Your task to perform on an android device: open chrome privacy settings Image 0: 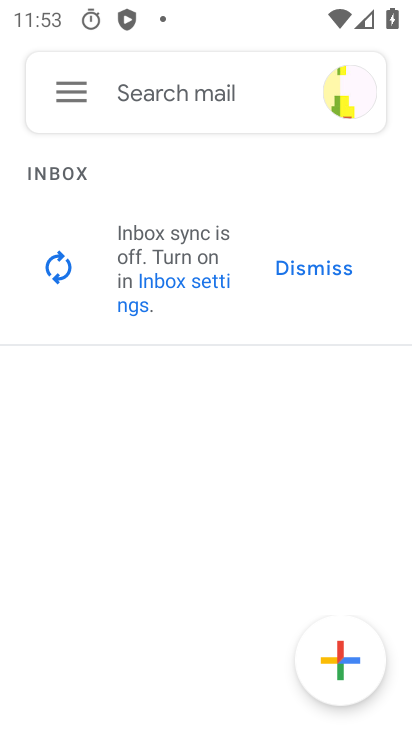
Step 0: press home button
Your task to perform on an android device: open chrome privacy settings Image 1: 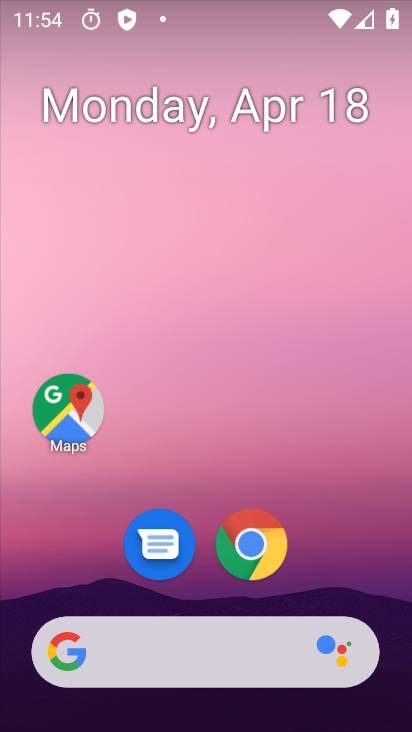
Step 1: click (253, 552)
Your task to perform on an android device: open chrome privacy settings Image 2: 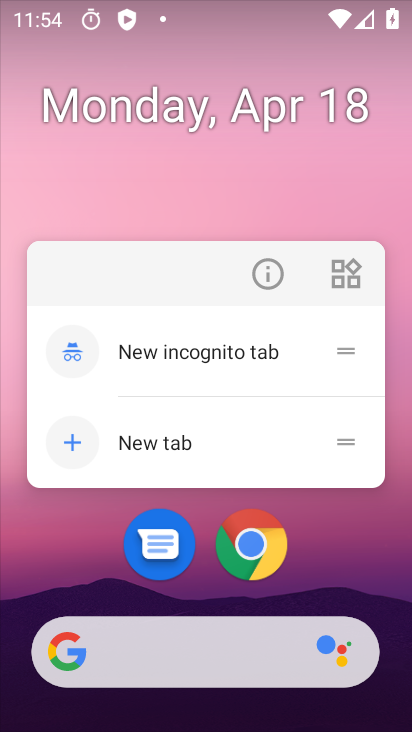
Step 2: click (366, 568)
Your task to perform on an android device: open chrome privacy settings Image 3: 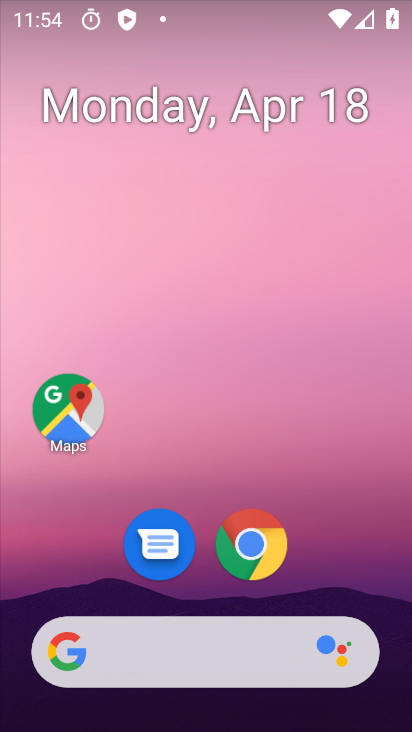
Step 3: click (248, 550)
Your task to perform on an android device: open chrome privacy settings Image 4: 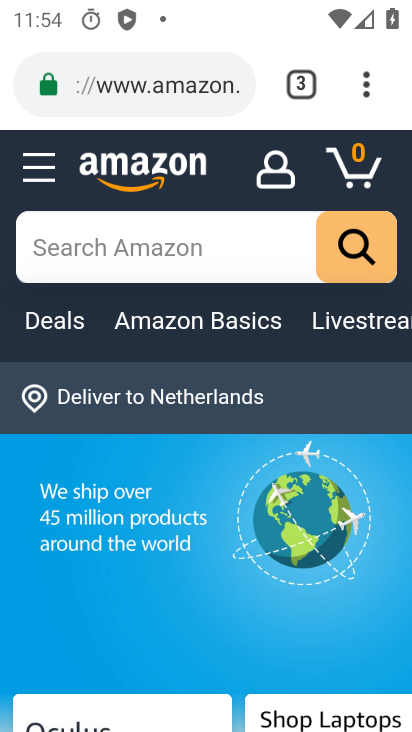
Step 4: click (371, 85)
Your task to perform on an android device: open chrome privacy settings Image 5: 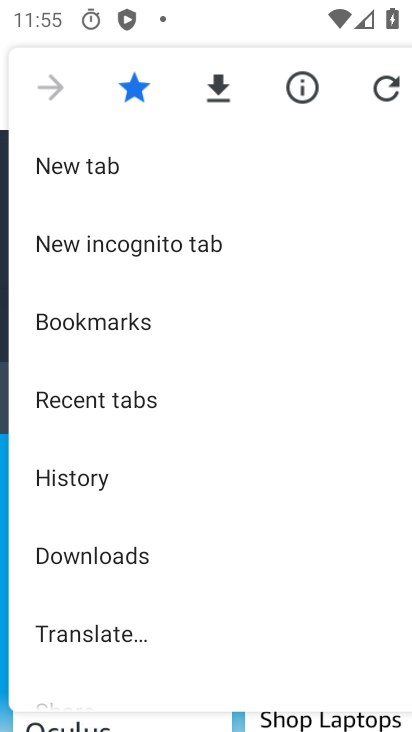
Step 5: drag from (186, 559) to (203, 288)
Your task to perform on an android device: open chrome privacy settings Image 6: 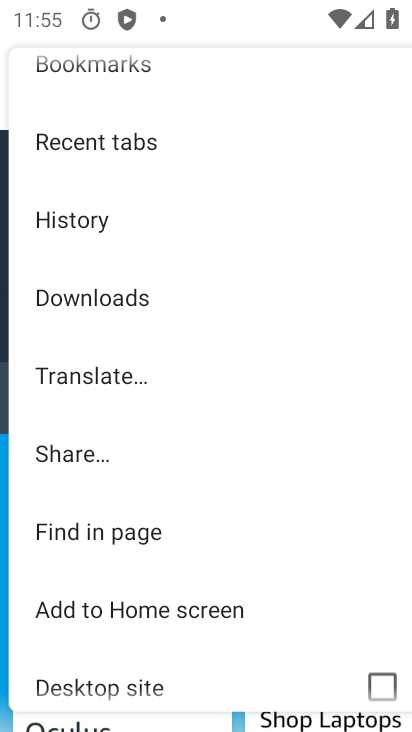
Step 6: drag from (201, 548) to (192, 286)
Your task to perform on an android device: open chrome privacy settings Image 7: 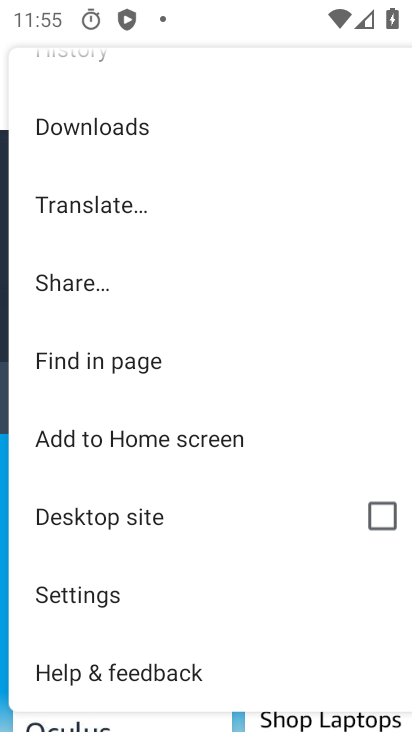
Step 7: click (83, 595)
Your task to perform on an android device: open chrome privacy settings Image 8: 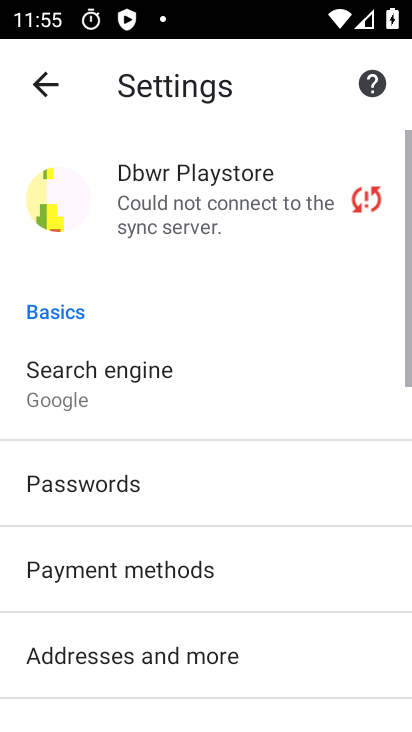
Step 8: drag from (247, 502) to (239, 226)
Your task to perform on an android device: open chrome privacy settings Image 9: 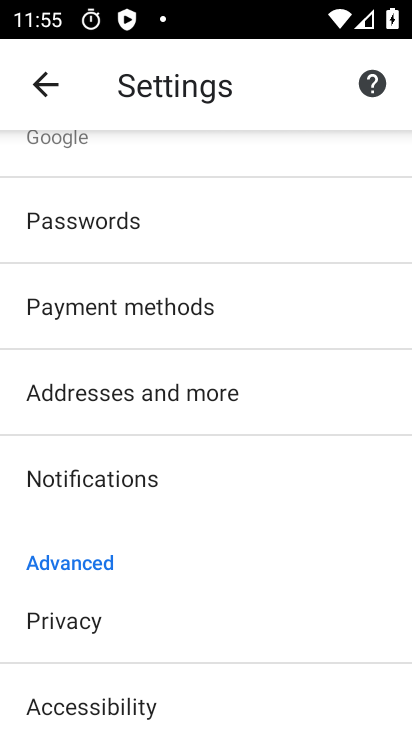
Step 9: click (70, 626)
Your task to perform on an android device: open chrome privacy settings Image 10: 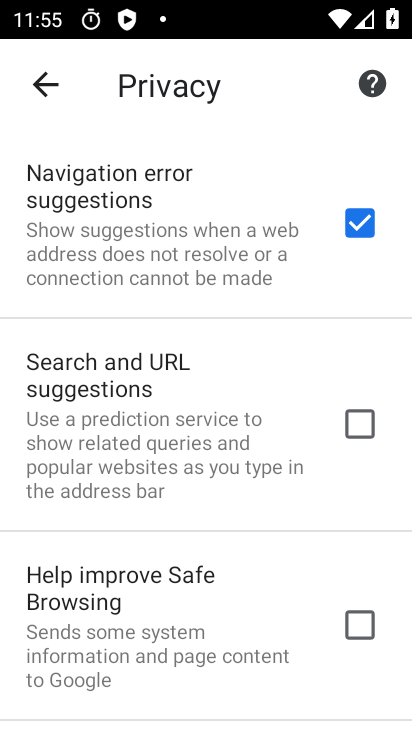
Step 10: task complete